Your task to perform on an android device: Search for sushi restaurants on Maps Image 0: 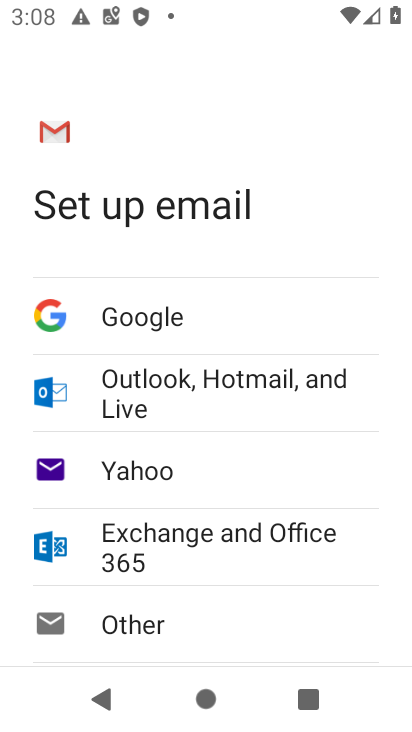
Step 0: press home button
Your task to perform on an android device: Search for sushi restaurants on Maps Image 1: 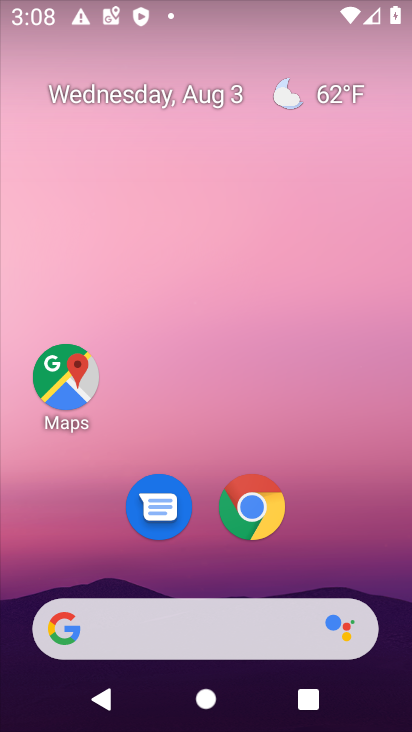
Step 1: click (69, 368)
Your task to perform on an android device: Search for sushi restaurants on Maps Image 2: 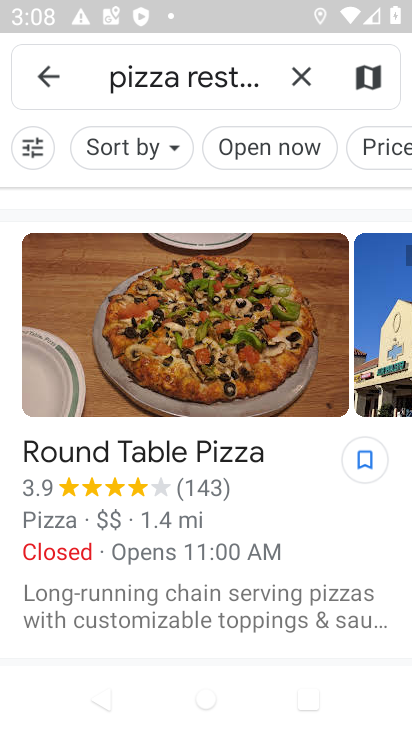
Step 2: click (292, 80)
Your task to perform on an android device: Search for sushi restaurants on Maps Image 3: 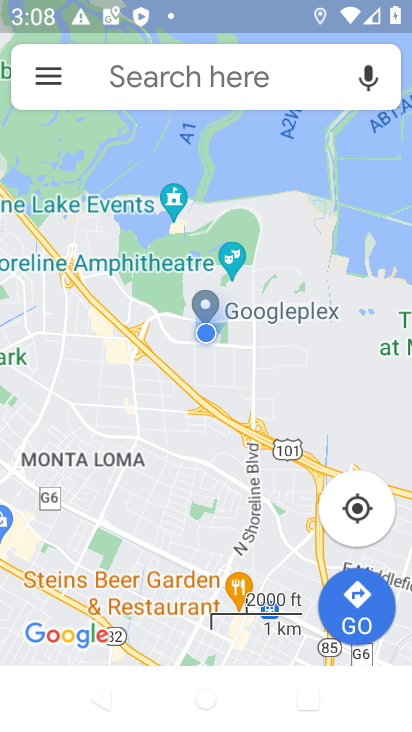
Step 3: click (292, 80)
Your task to perform on an android device: Search for sushi restaurants on Maps Image 4: 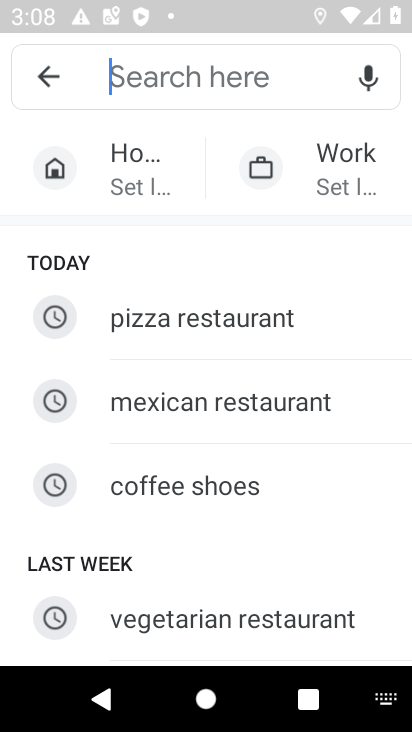
Step 4: drag from (221, 617) to (149, 223)
Your task to perform on an android device: Search for sushi restaurants on Maps Image 5: 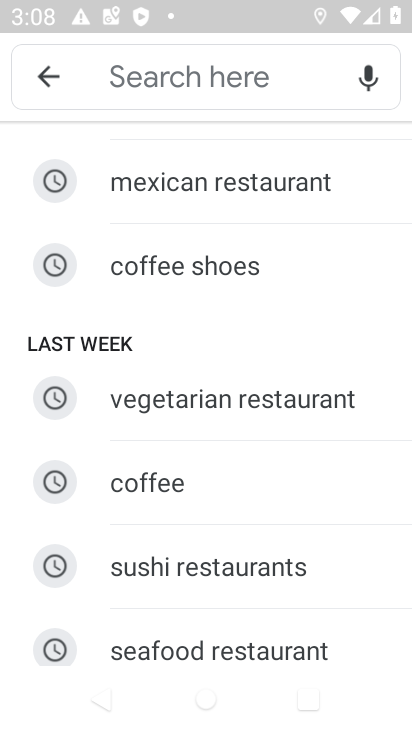
Step 5: click (160, 570)
Your task to perform on an android device: Search for sushi restaurants on Maps Image 6: 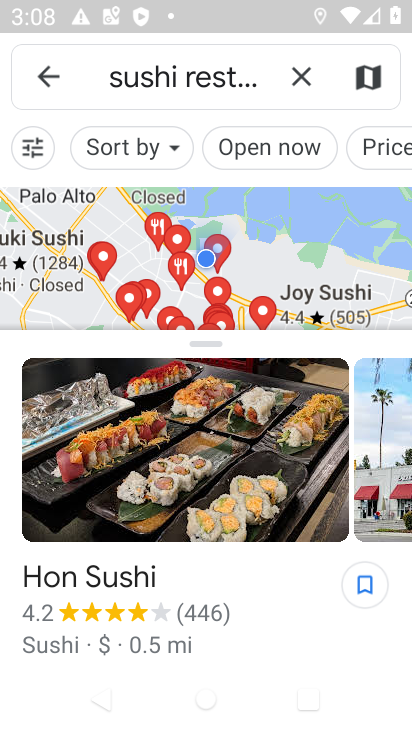
Step 6: task complete